Your task to perform on an android device: turn notification dots on Image 0: 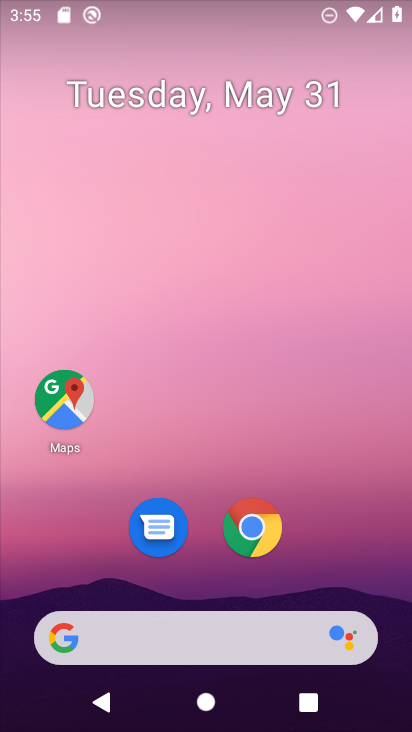
Step 0: drag from (226, 625) to (151, 0)
Your task to perform on an android device: turn notification dots on Image 1: 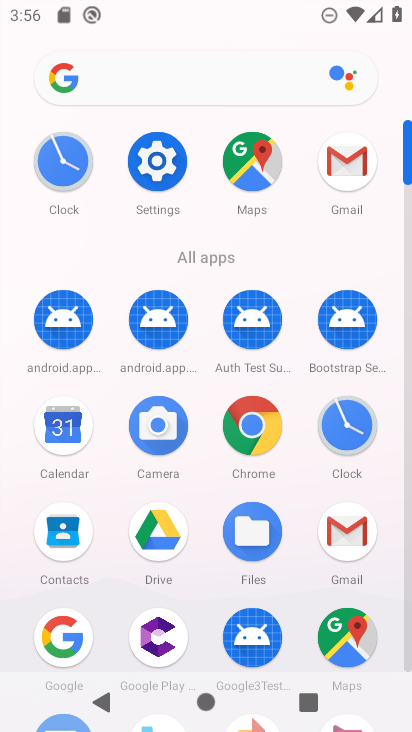
Step 1: click (153, 158)
Your task to perform on an android device: turn notification dots on Image 2: 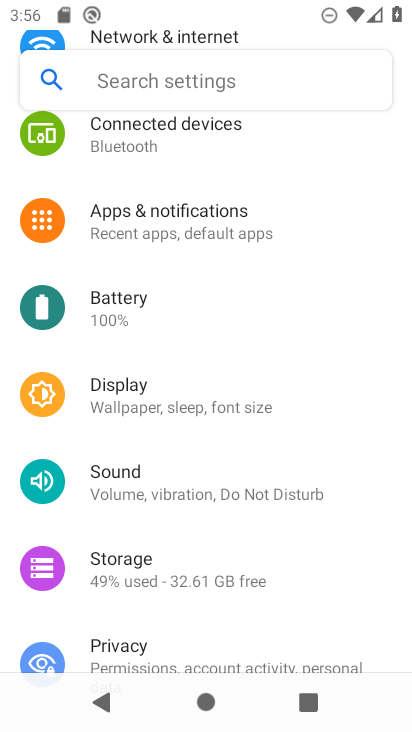
Step 2: click (242, 234)
Your task to perform on an android device: turn notification dots on Image 3: 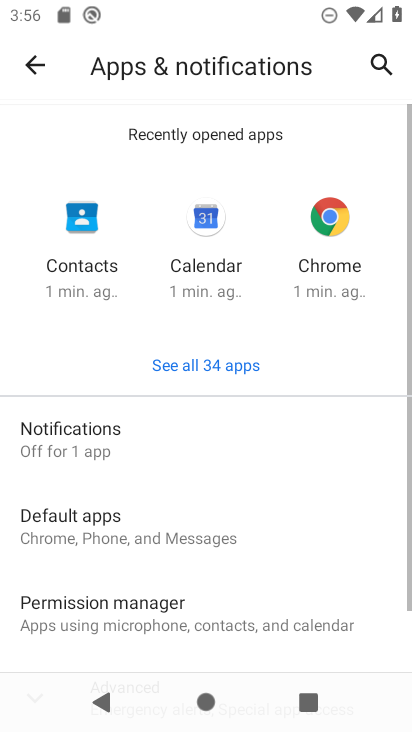
Step 3: click (108, 440)
Your task to perform on an android device: turn notification dots on Image 4: 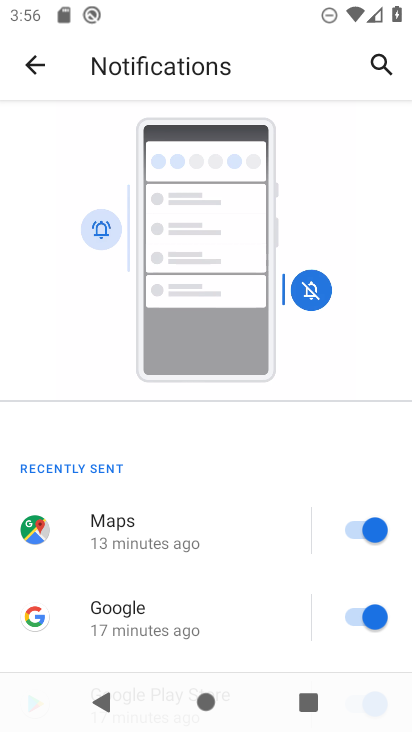
Step 4: drag from (225, 540) to (169, 61)
Your task to perform on an android device: turn notification dots on Image 5: 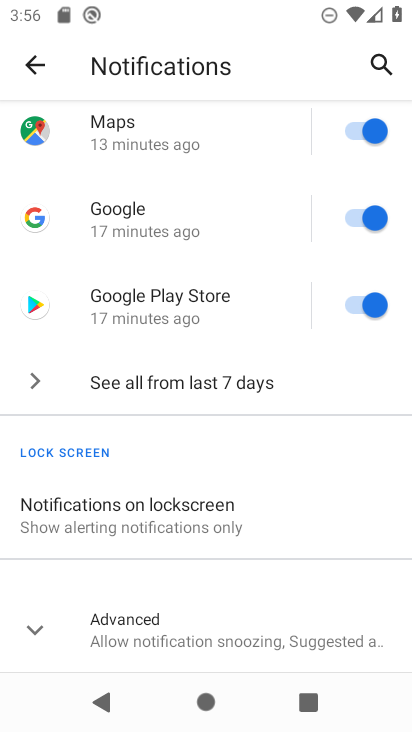
Step 5: click (209, 632)
Your task to perform on an android device: turn notification dots on Image 6: 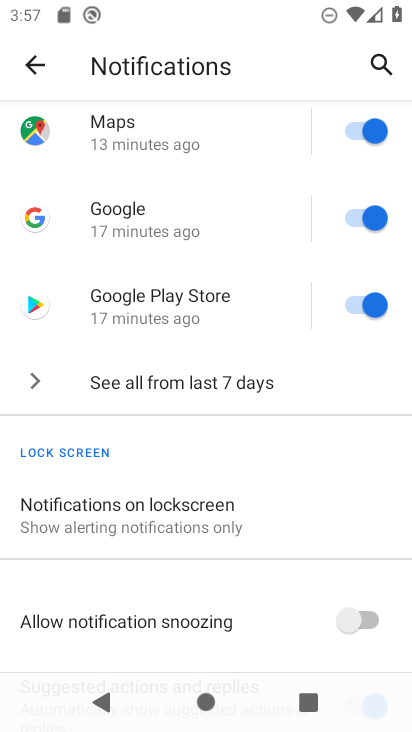
Step 6: task complete